Your task to perform on an android device: Open settings on Google Maps Image 0: 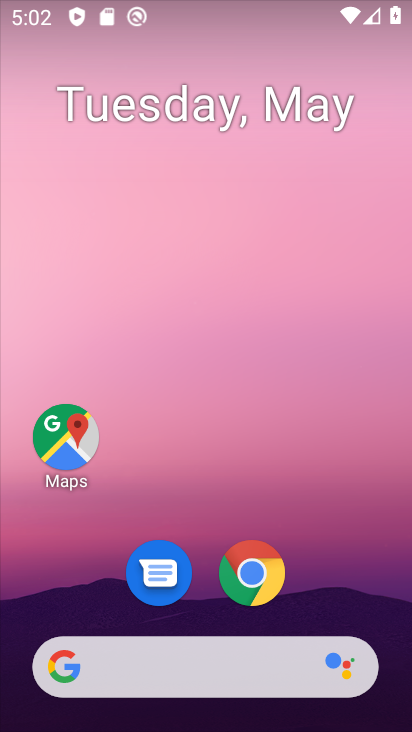
Step 0: click (66, 432)
Your task to perform on an android device: Open settings on Google Maps Image 1: 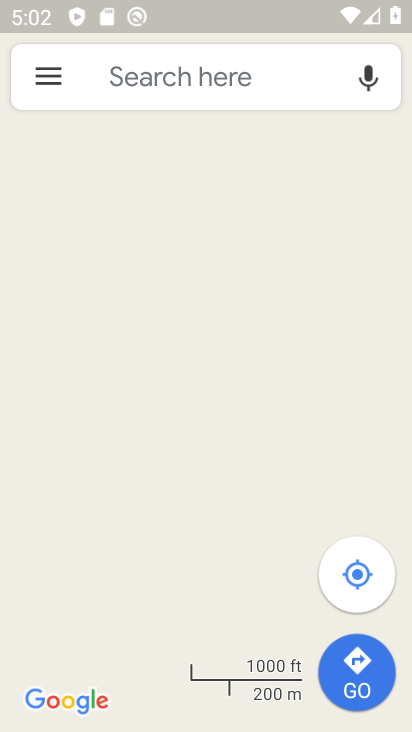
Step 1: click (45, 78)
Your task to perform on an android device: Open settings on Google Maps Image 2: 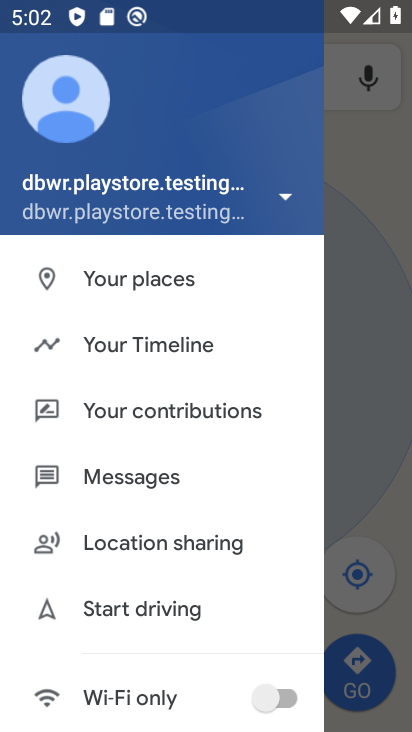
Step 2: drag from (155, 701) to (228, 151)
Your task to perform on an android device: Open settings on Google Maps Image 3: 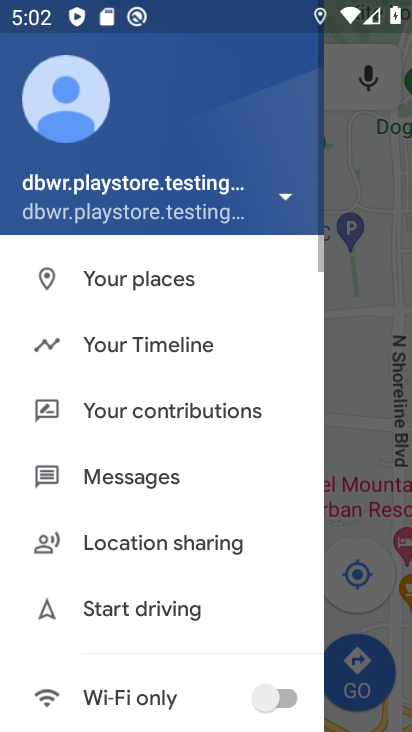
Step 3: drag from (157, 185) to (224, 150)
Your task to perform on an android device: Open settings on Google Maps Image 4: 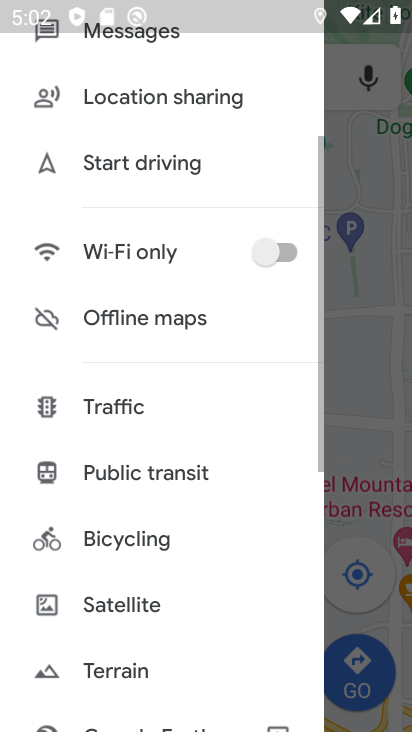
Step 4: drag from (143, 566) to (219, 80)
Your task to perform on an android device: Open settings on Google Maps Image 5: 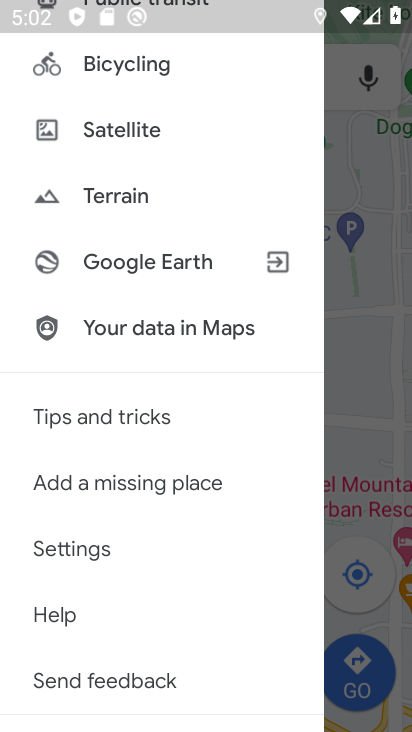
Step 5: click (92, 543)
Your task to perform on an android device: Open settings on Google Maps Image 6: 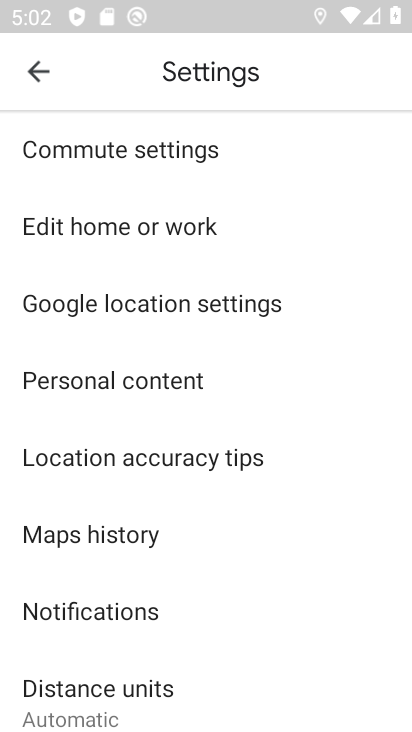
Step 6: task complete